Your task to perform on an android device: allow notifications from all sites in the chrome app Image 0: 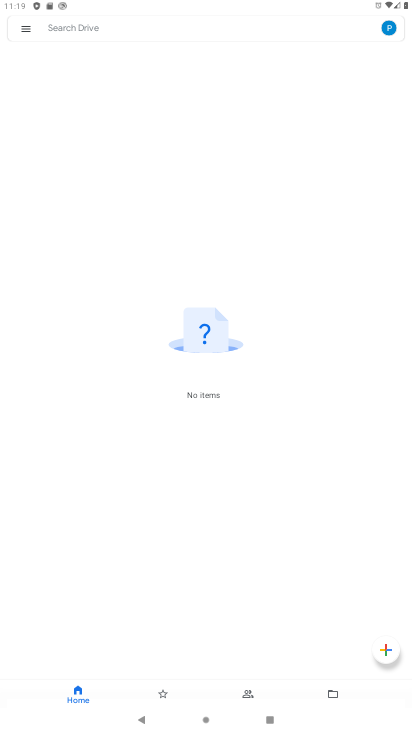
Step 0: press home button
Your task to perform on an android device: allow notifications from all sites in the chrome app Image 1: 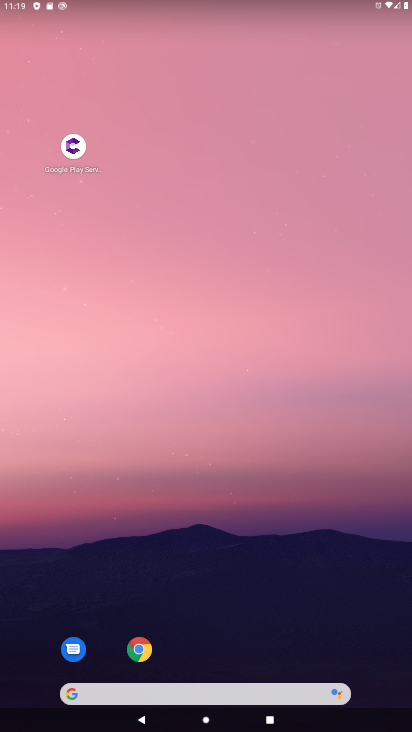
Step 1: drag from (253, 574) to (337, 20)
Your task to perform on an android device: allow notifications from all sites in the chrome app Image 2: 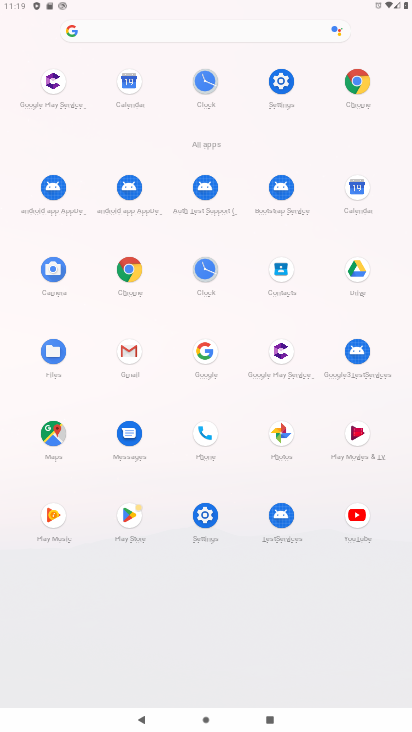
Step 2: click (130, 256)
Your task to perform on an android device: allow notifications from all sites in the chrome app Image 3: 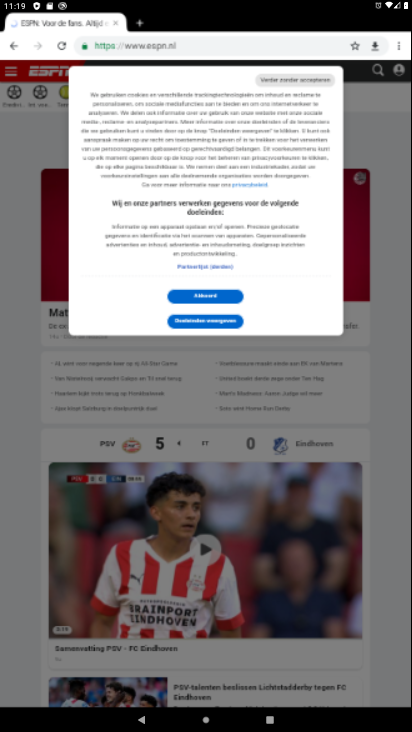
Step 3: drag from (396, 42) to (370, 201)
Your task to perform on an android device: allow notifications from all sites in the chrome app Image 4: 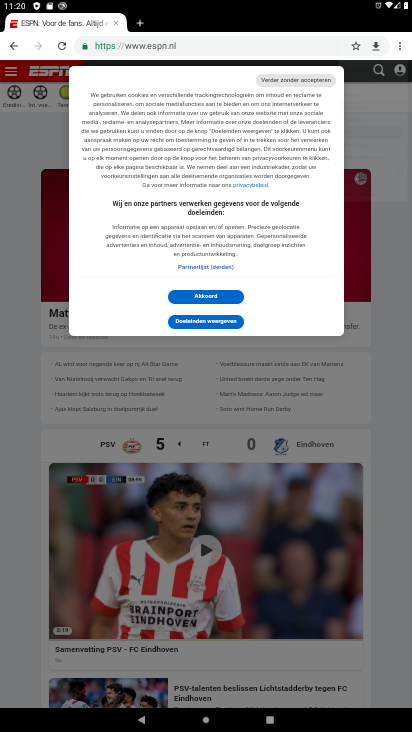
Step 4: drag from (369, 303) to (352, 268)
Your task to perform on an android device: allow notifications from all sites in the chrome app Image 5: 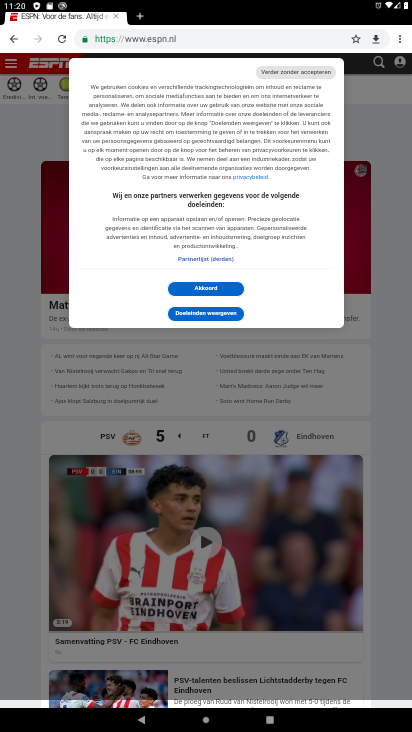
Step 5: drag from (379, 133) to (350, 218)
Your task to perform on an android device: allow notifications from all sites in the chrome app Image 6: 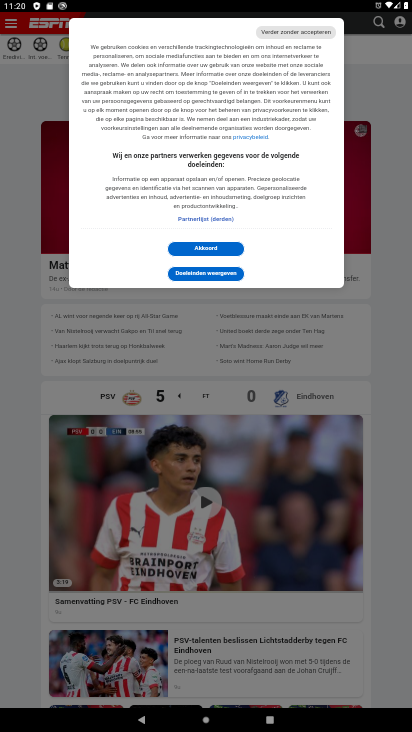
Step 6: click (348, 174)
Your task to perform on an android device: allow notifications from all sites in the chrome app Image 7: 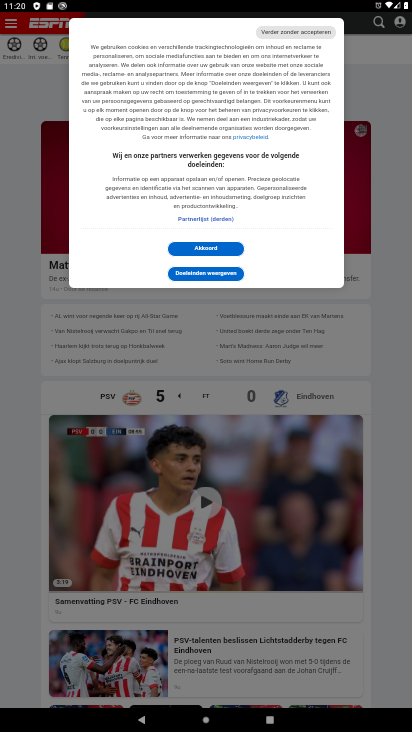
Step 7: press back button
Your task to perform on an android device: allow notifications from all sites in the chrome app Image 8: 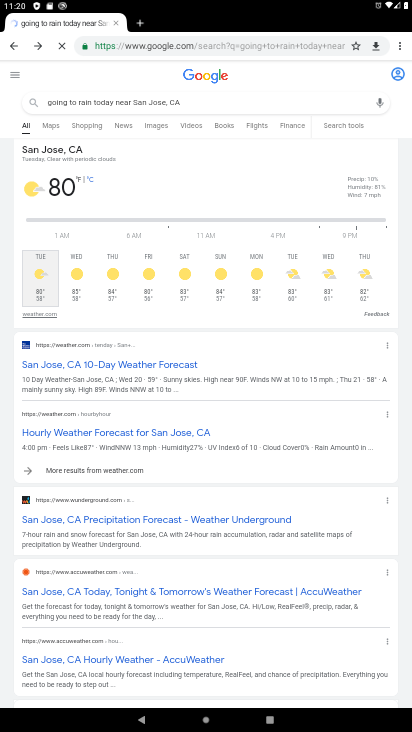
Step 8: drag from (402, 42) to (316, 286)
Your task to perform on an android device: allow notifications from all sites in the chrome app Image 9: 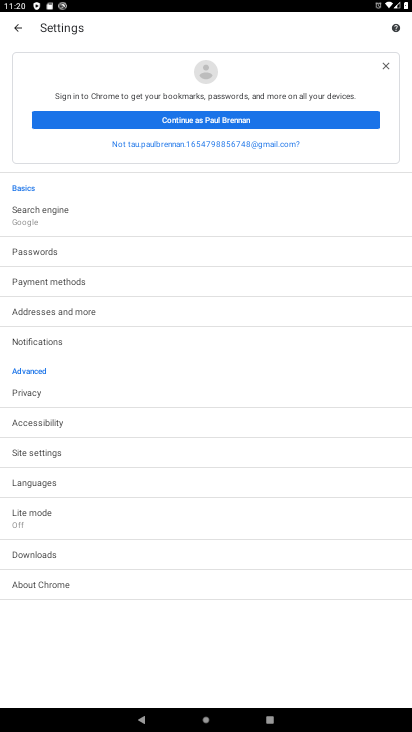
Step 9: click (56, 341)
Your task to perform on an android device: allow notifications from all sites in the chrome app Image 10: 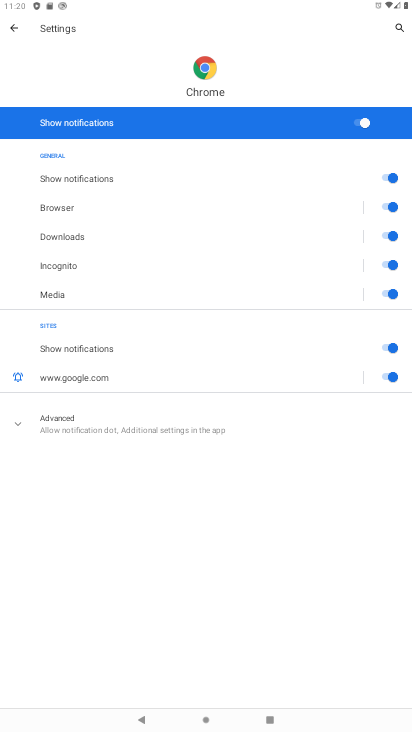
Step 10: task complete